Your task to perform on an android device: turn on showing notifications on the lock screen Image 0: 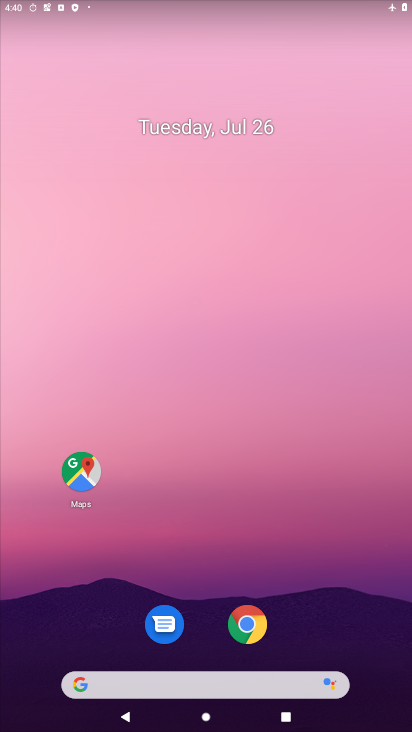
Step 0: drag from (181, 679) to (172, 56)
Your task to perform on an android device: turn on showing notifications on the lock screen Image 1: 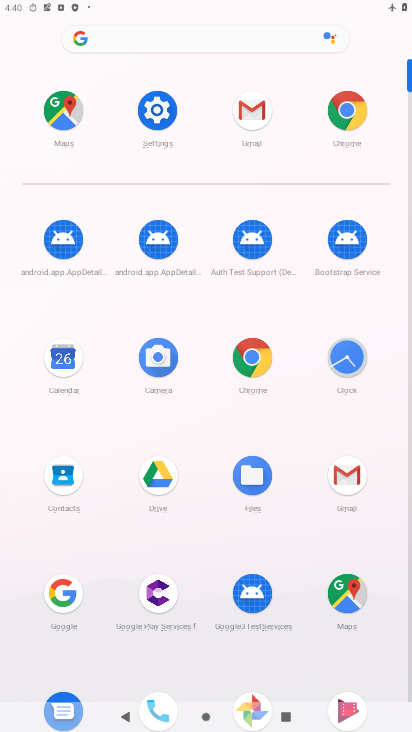
Step 1: click (173, 102)
Your task to perform on an android device: turn on showing notifications on the lock screen Image 2: 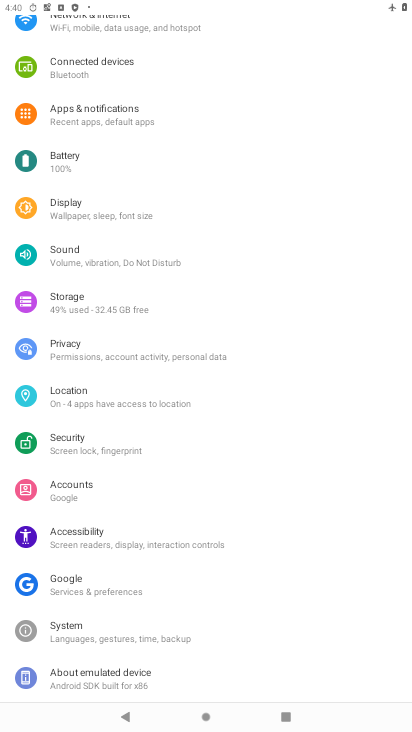
Step 2: click (136, 109)
Your task to perform on an android device: turn on showing notifications on the lock screen Image 3: 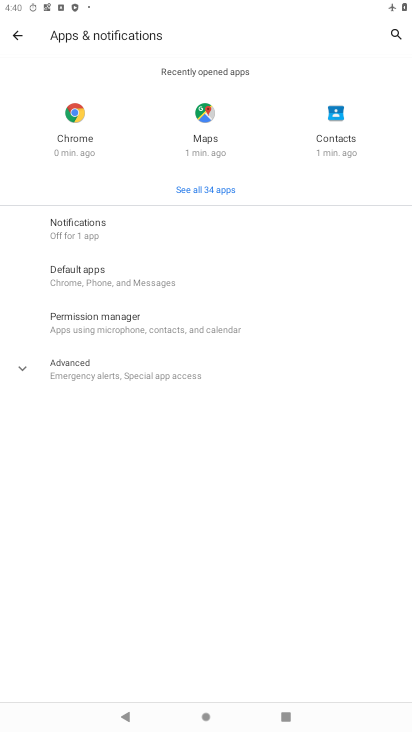
Step 3: click (106, 234)
Your task to perform on an android device: turn on showing notifications on the lock screen Image 4: 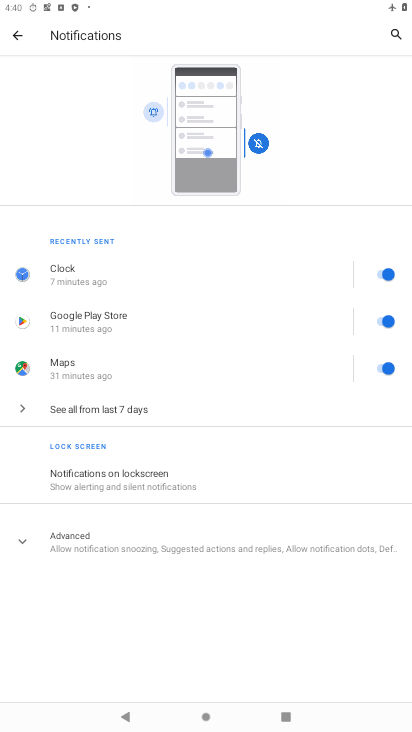
Step 4: click (133, 482)
Your task to perform on an android device: turn on showing notifications on the lock screen Image 5: 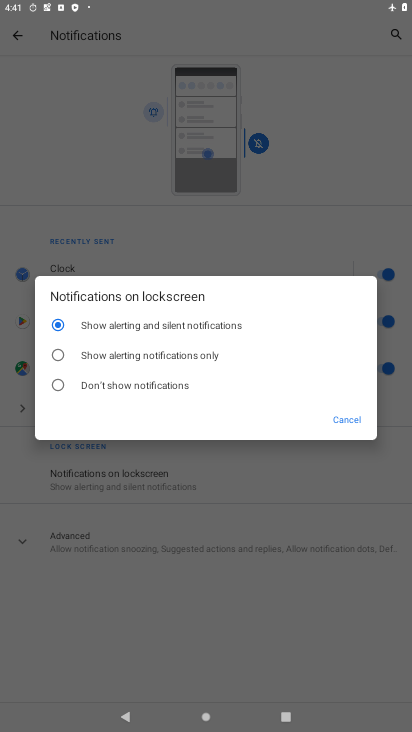
Step 5: task complete